Your task to perform on an android device: open wifi settings Image 0: 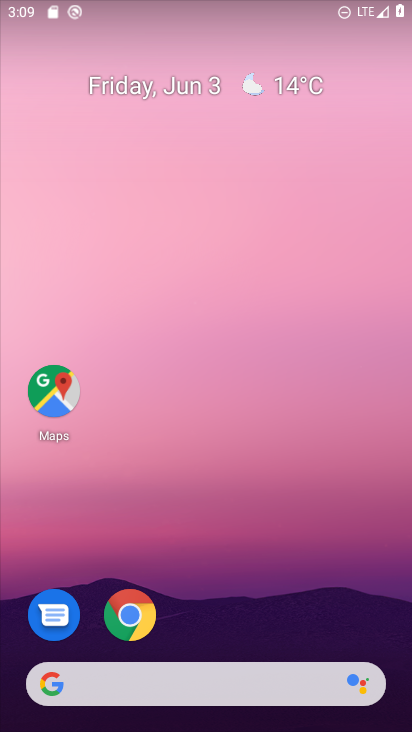
Step 0: drag from (402, 2) to (0, 101)
Your task to perform on an android device: open wifi settings Image 1: 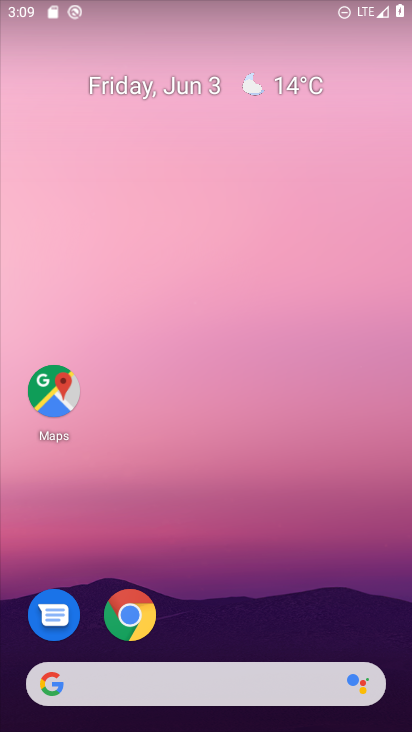
Step 1: drag from (224, 486) to (317, 5)
Your task to perform on an android device: open wifi settings Image 2: 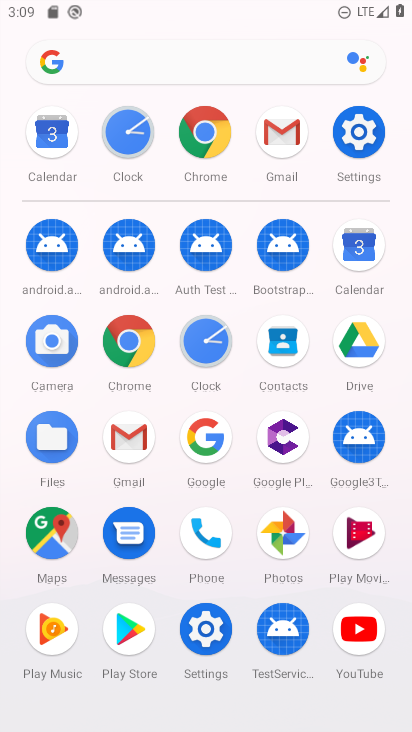
Step 2: click (359, 130)
Your task to perform on an android device: open wifi settings Image 3: 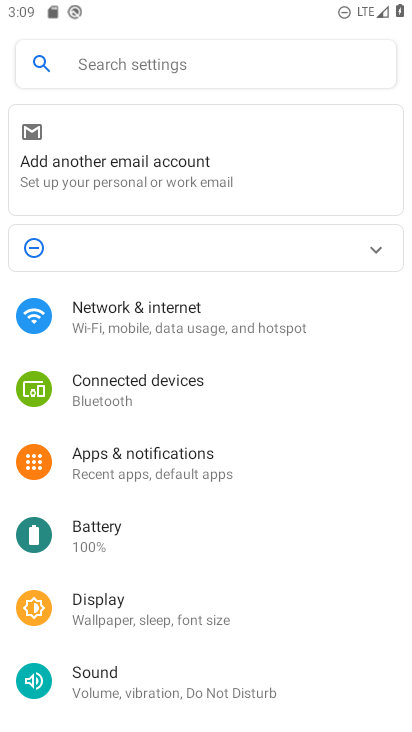
Step 3: click (156, 309)
Your task to perform on an android device: open wifi settings Image 4: 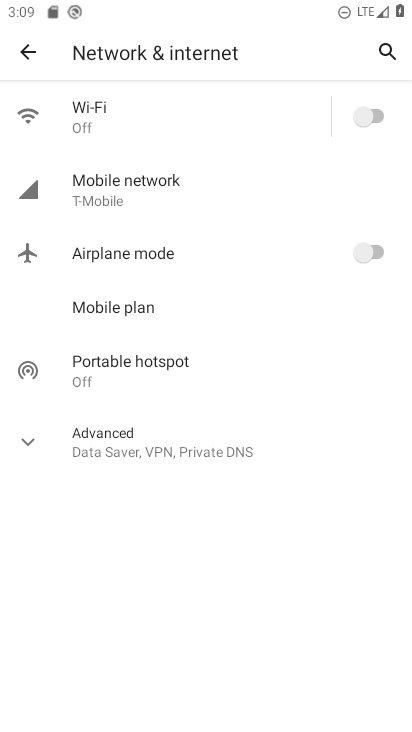
Step 4: click (232, 108)
Your task to perform on an android device: open wifi settings Image 5: 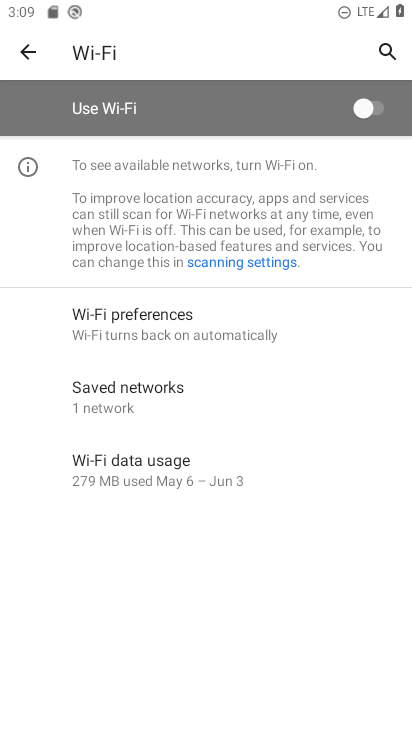
Step 5: task complete